Your task to perform on an android device: Open the stopwatch Image 0: 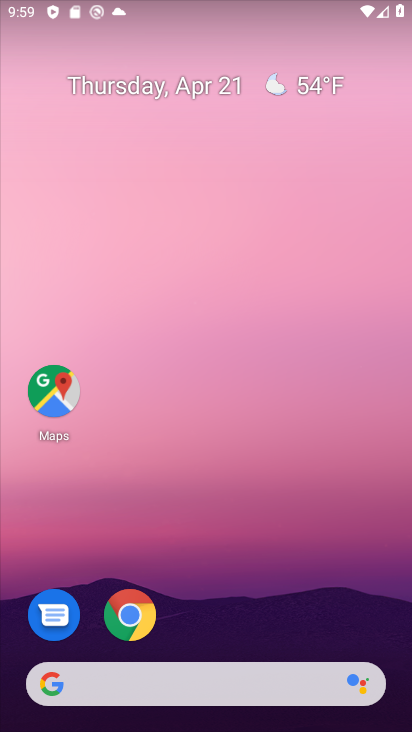
Step 0: drag from (284, 611) to (219, 54)
Your task to perform on an android device: Open the stopwatch Image 1: 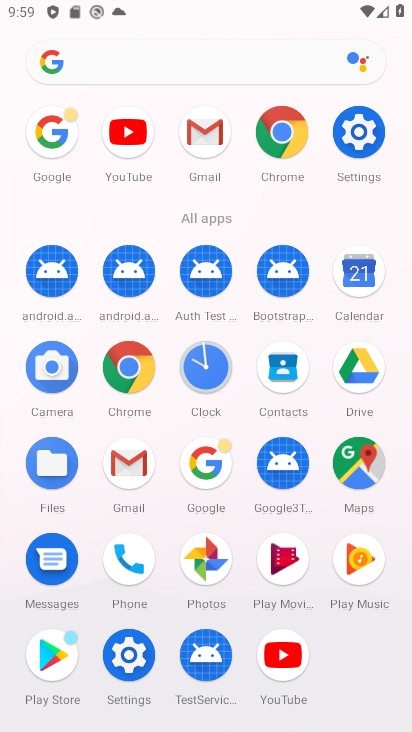
Step 1: click (199, 369)
Your task to perform on an android device: Open the stopwatch Image 2: 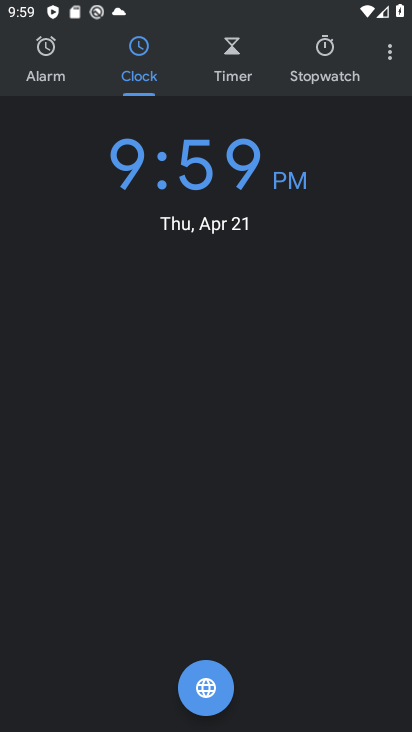
Step 2: click (322, 64)
Your task to perform on an android device: Open the stopwatch Image 3: 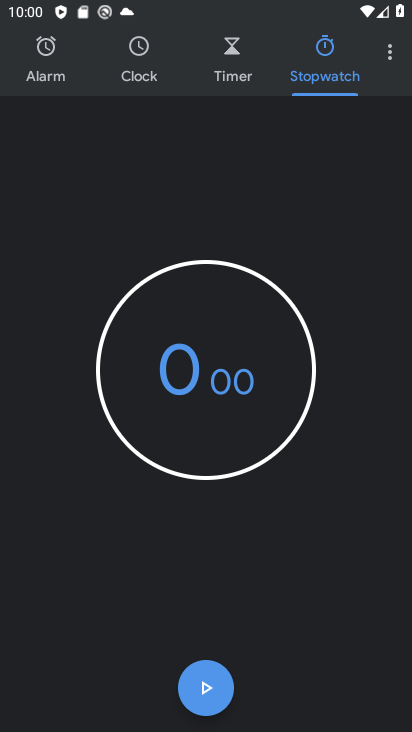
Step 3: task complete